Your task to perform on an android device: toggle data saver in the chrome app Image 0: 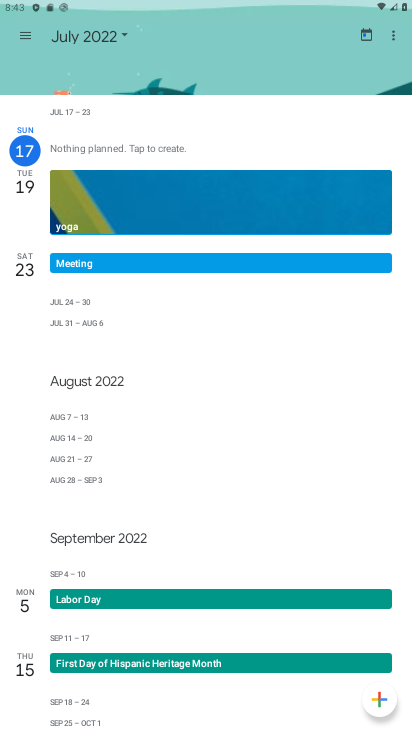
Step 0: press home button
Your task to perform on an android device: toggle data saver in the chrome app Image 1: 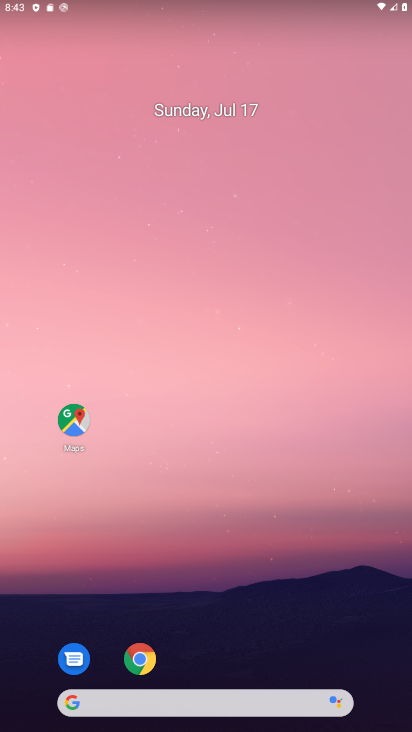
Step 1: click (141, 660)
Your task to perform on an android device: toggle data saver in the chrome app Image 2: 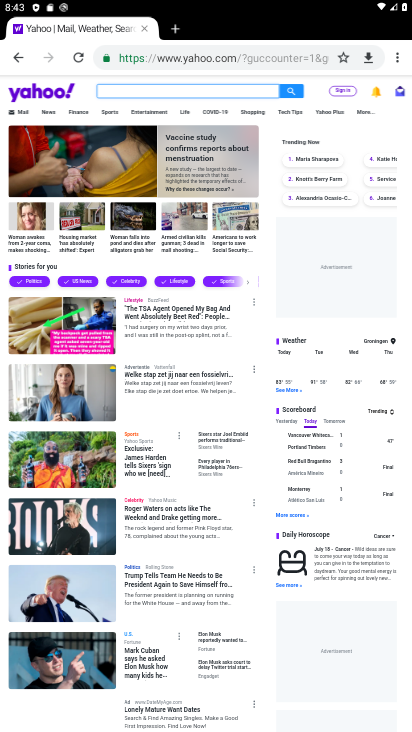
Step 2: click (399, 56)
Your task to perform on an android device: toggle data saver in the chrome app Image 3: 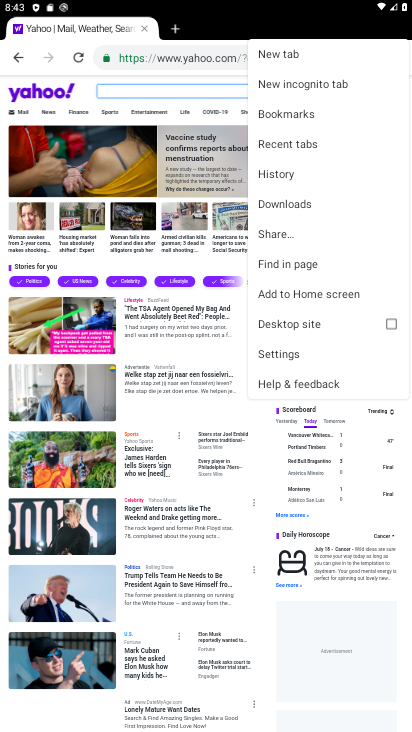
Step 3: click (290, 358)
Your task to perform on an android device: toggle data saver in the chrome app Image 4: 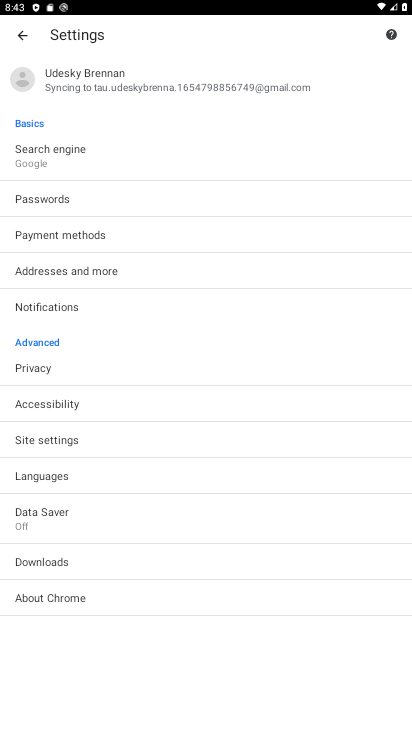
Step 4: click (64, 514)
Your task to perform on an android device: toggle data saver in the chrome app Image 5: 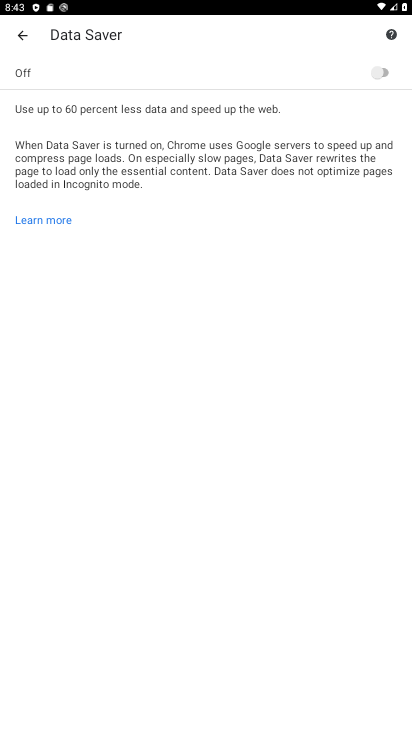
Step 5: click (379, 73)
Your task to perform on an android device: toggle data saver in the chrome app Image 6: 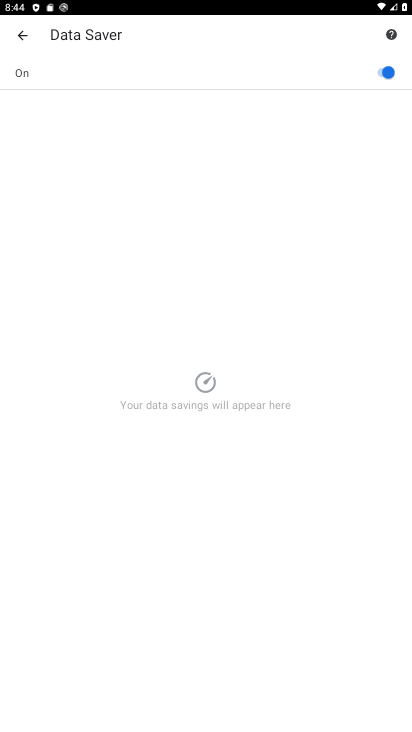
Step 6: task complete